Your task to perform on an android device: turn off picture-in-picture Image 0: 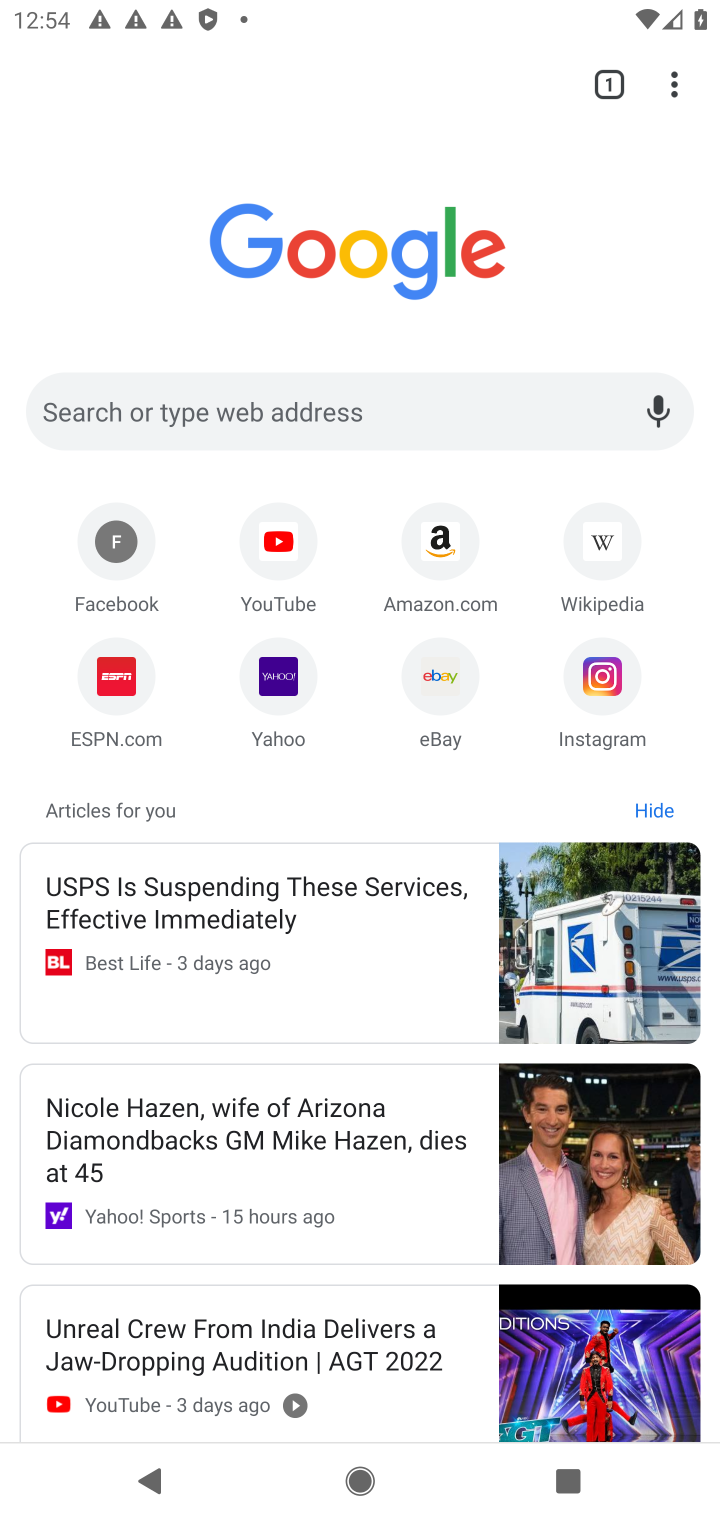
Step 0: press home button
Your task to perform on an android device: turn off picture-in-picture Image 1: 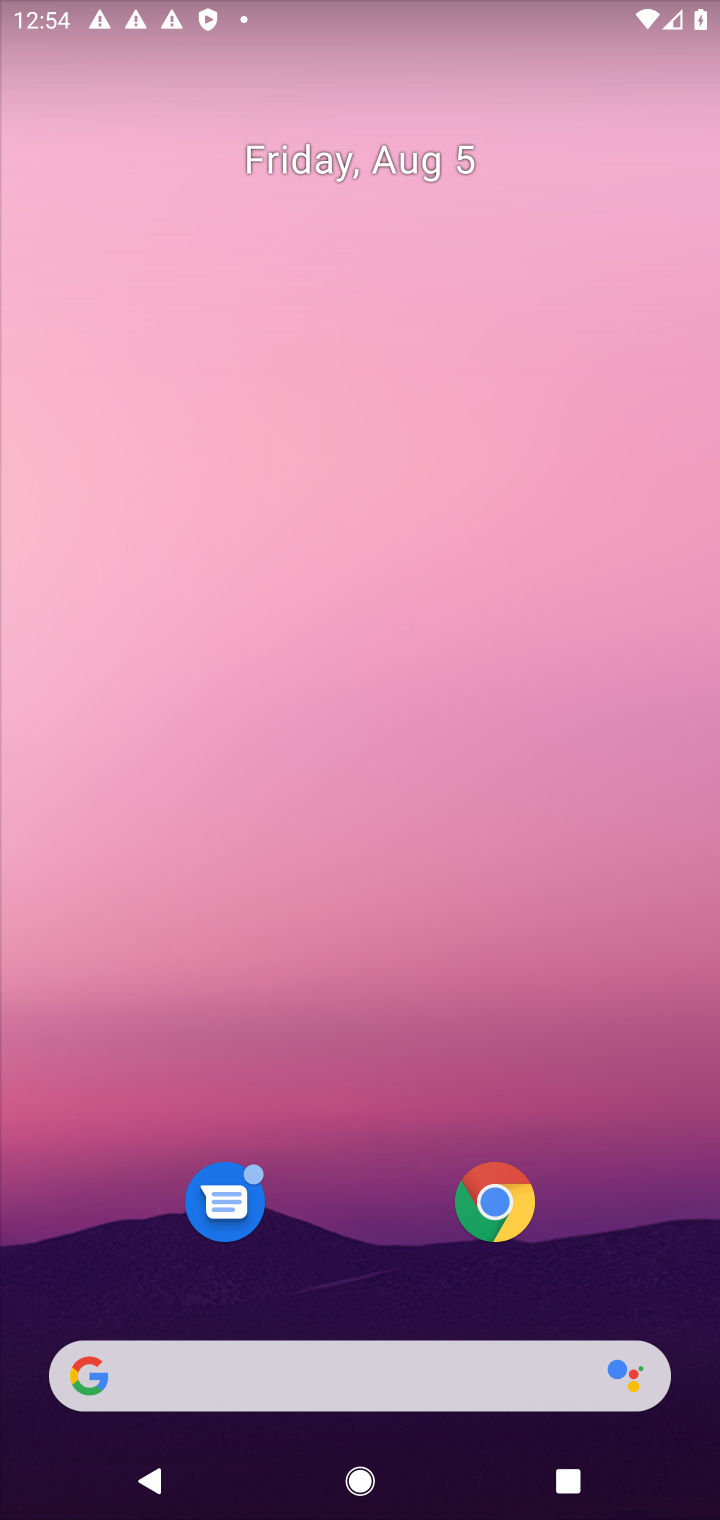
Step 1: click (507, 1193)
Your task to perform on an android device: turn off picture-in-picture Image 2: 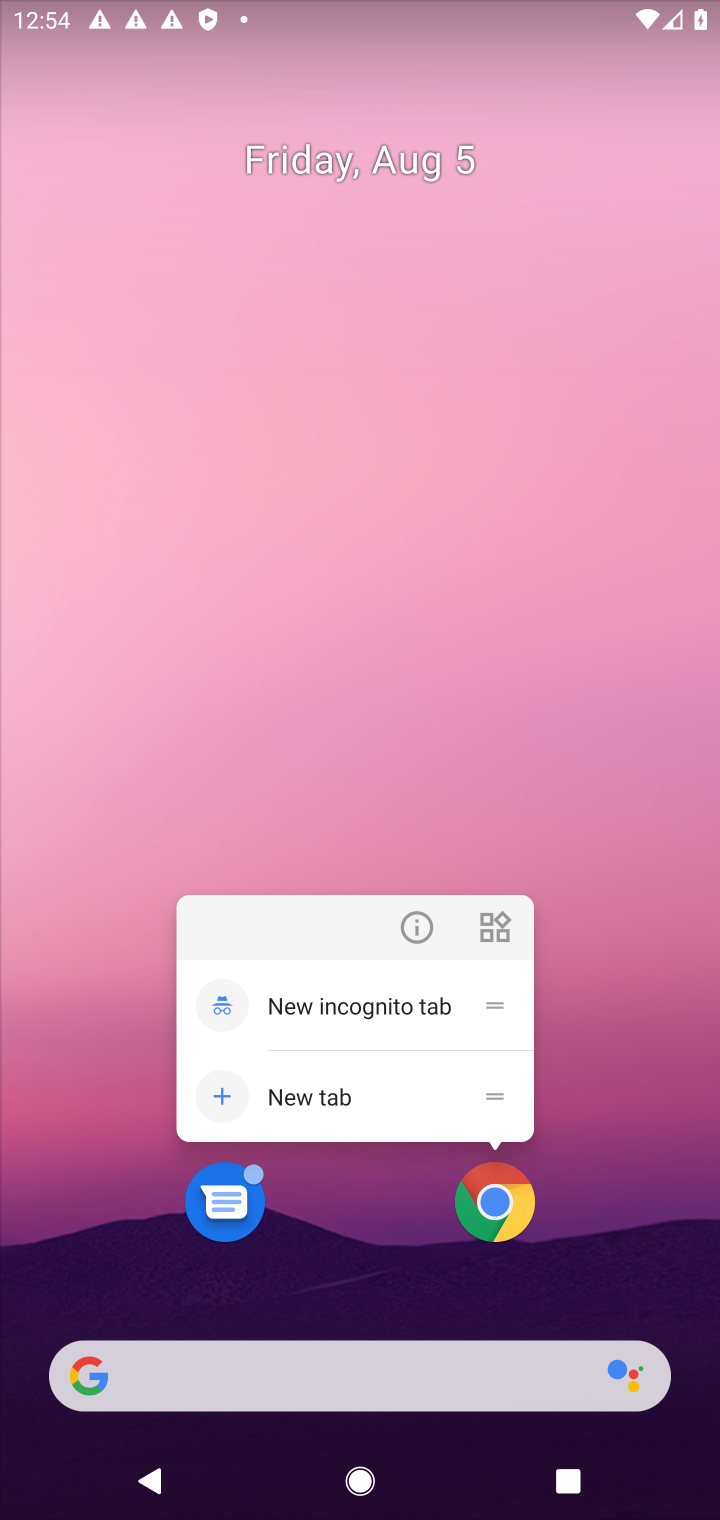
Step 2: click (420, 923)
Your task to perform on an android device: turn off picture-in-picture Image 3: 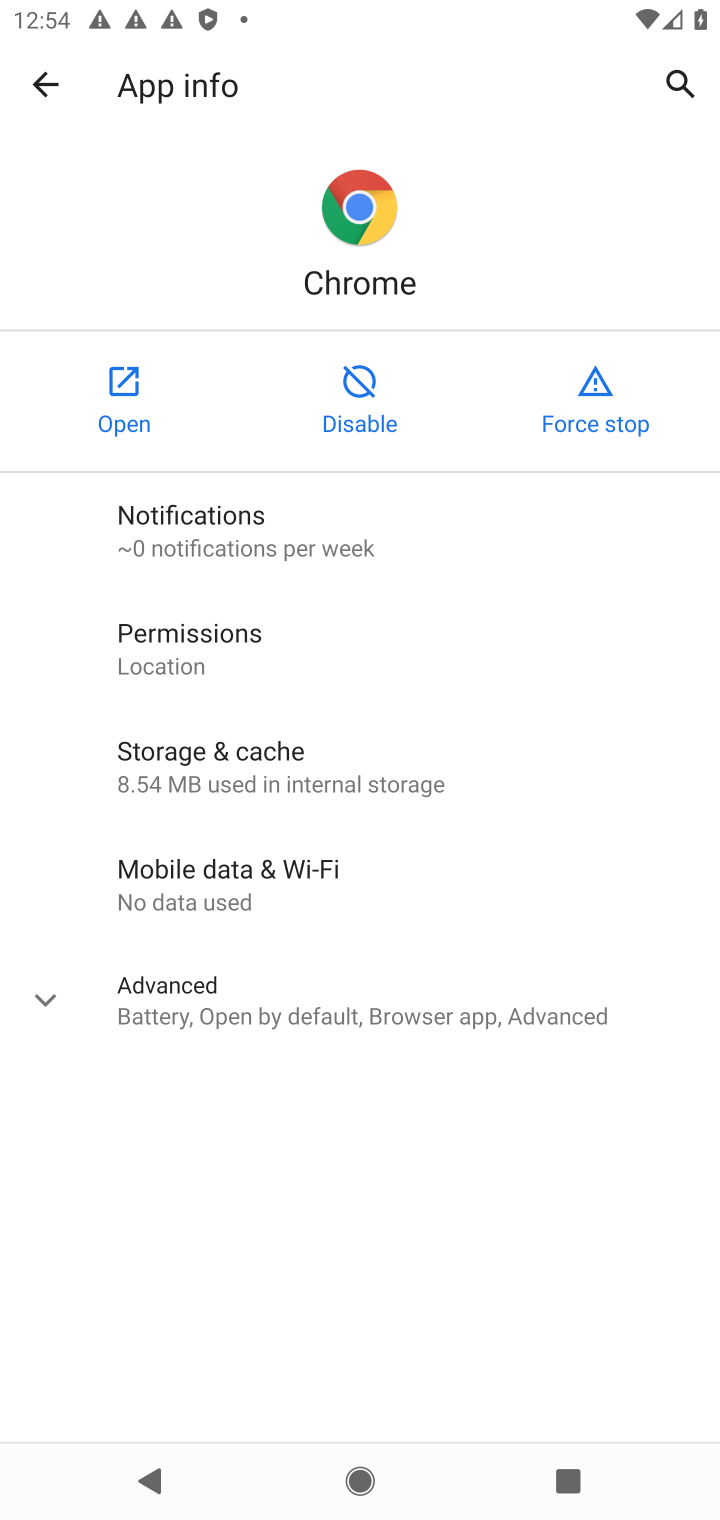
Step 3: click (267, 1020)
Your task to perform on an android device: turn off picture-in-picture Image 4: 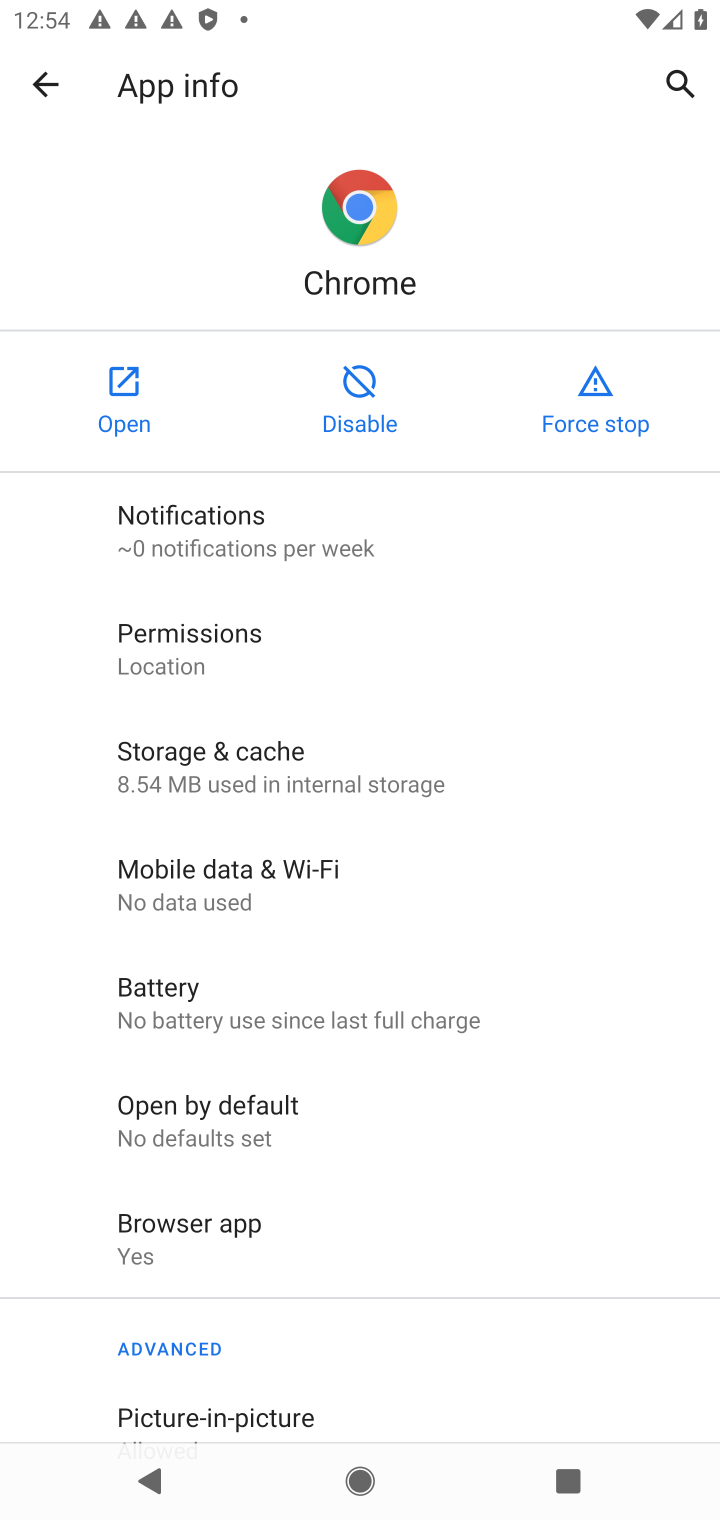
Step 4: drag from (467, 1292) to (624, 375)
Your task to perform on an android device: turn off picture-in-picture Image 5: 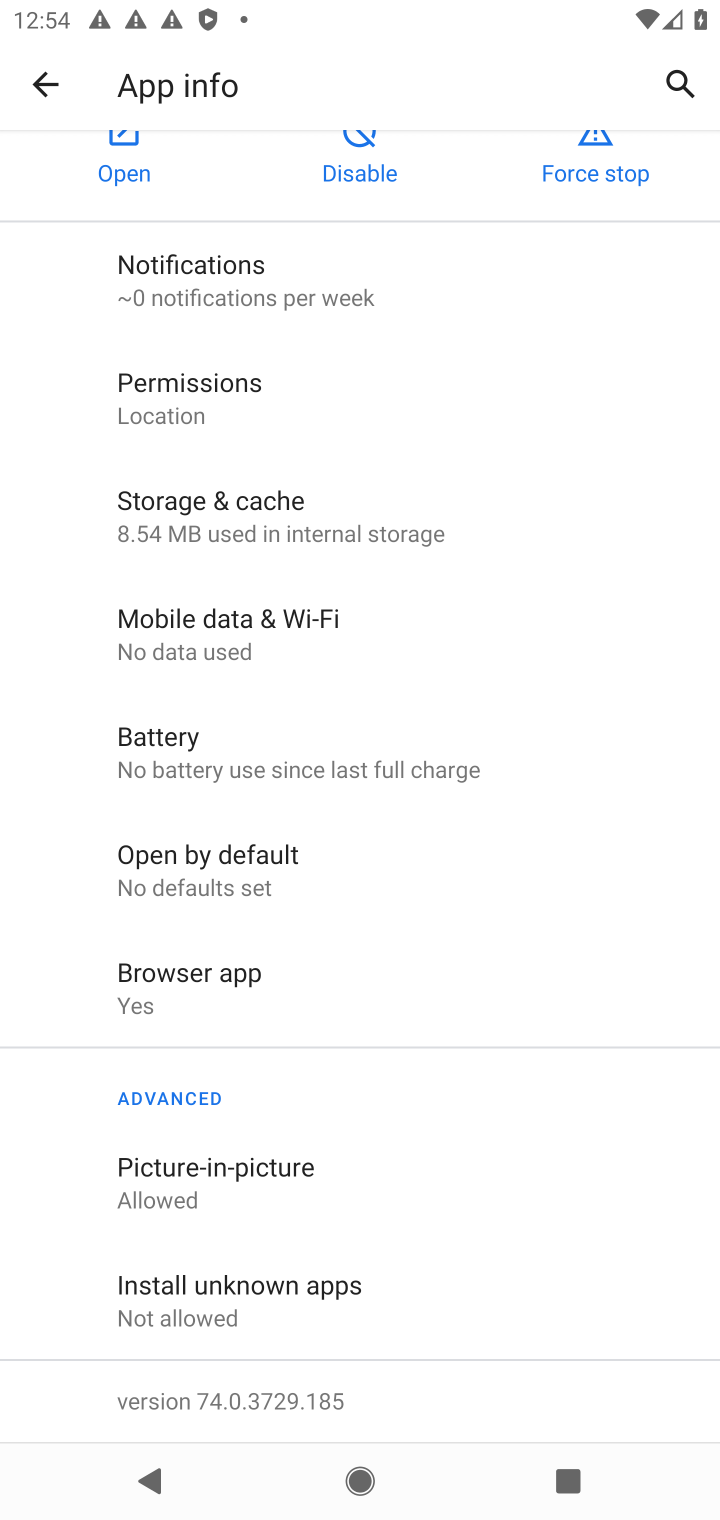
Step 5: click (200, 1184)
Your task to perform on an android device: turn off picture-in-picture Image 6: 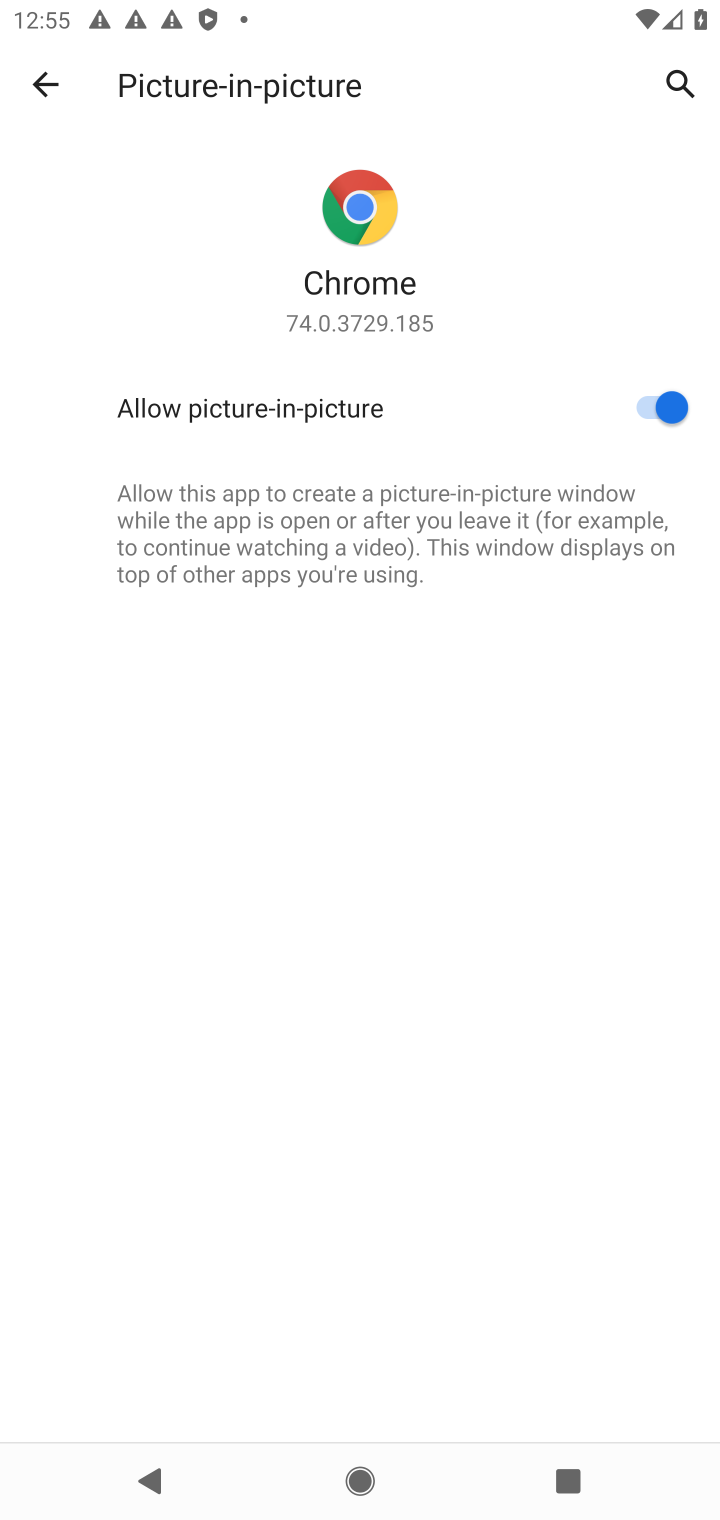
Step 6: click (663, 388)
Your task to perform on an android device: turn off picture-in-picture Image 7: 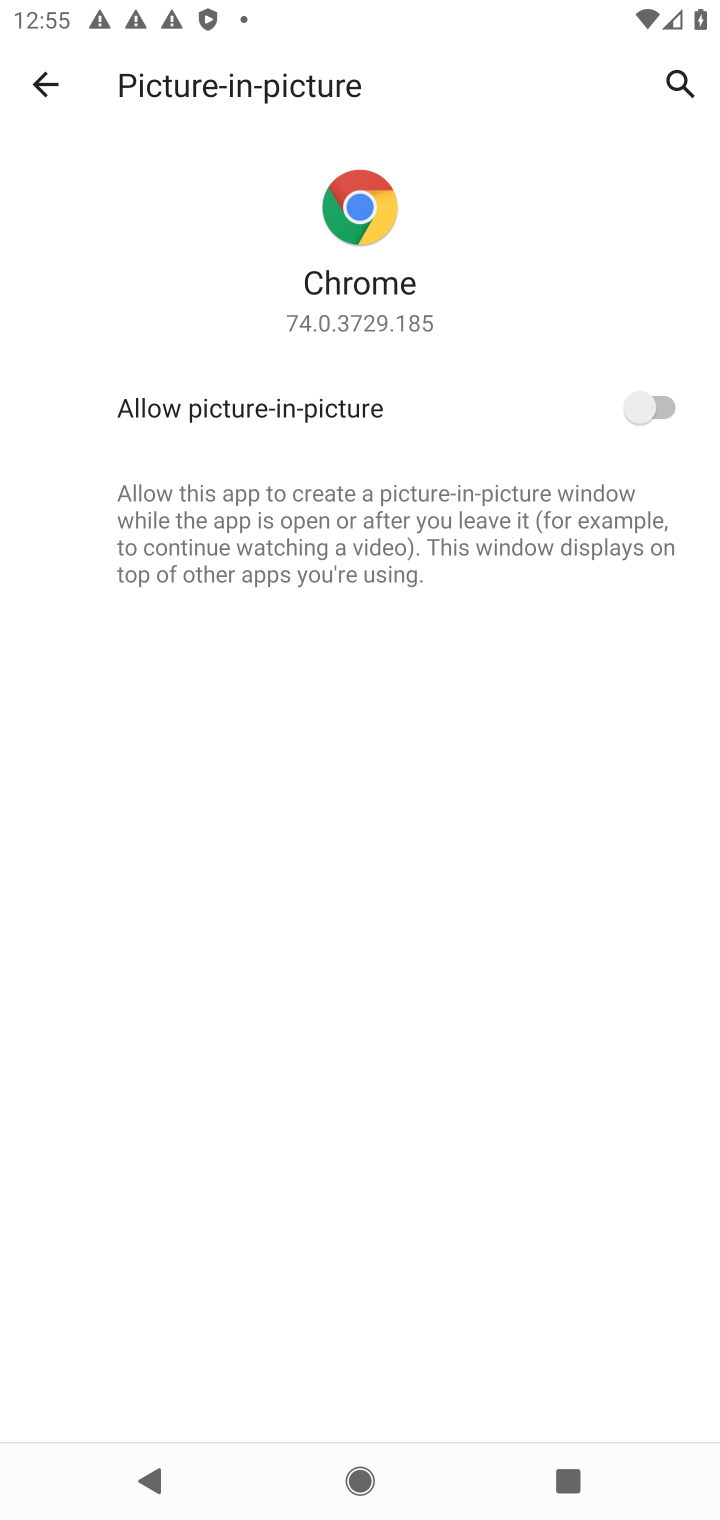
Step 7: task complete